Your task to perform on an android device: allow cookies in the chrome app Image 0: 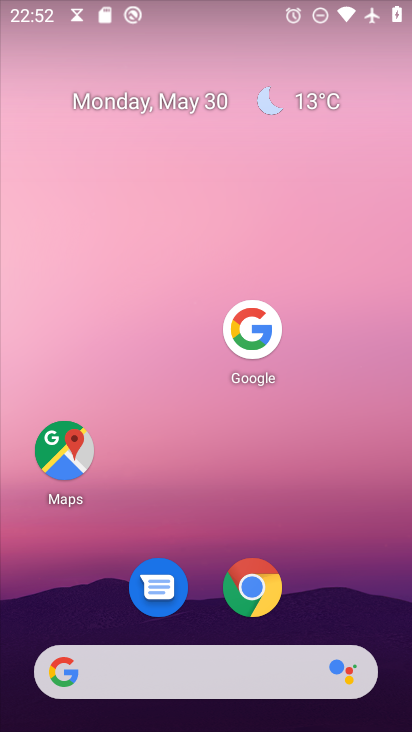
Step 0: click (249, 589)
Your task to perform on an android device: allow cookies in the chrome app Image 1: 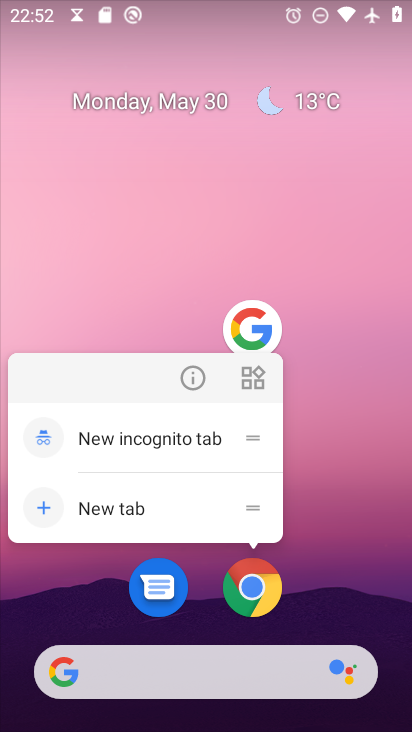
Step 1: click (249, 589)
Your task to perform on an android device: allow cookies in the chrome app Image 2: 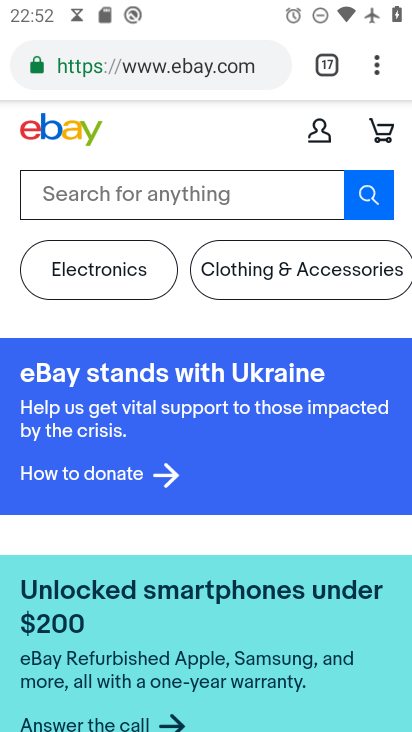
Step 2: drag from (375, 52) to (227, 644)
Your task to perform on an android device: allow cookies in the chrome app Image 3: 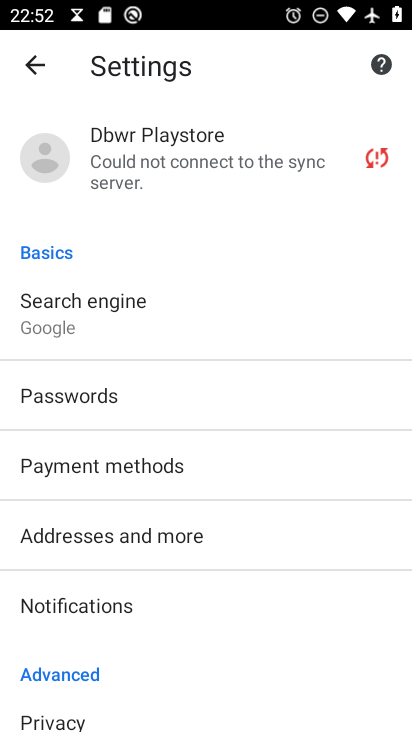
Step 3: drag from (230, 610) to (283, 139)
Your task to perform on an android device: allow cookies in the chrome app Image 4: 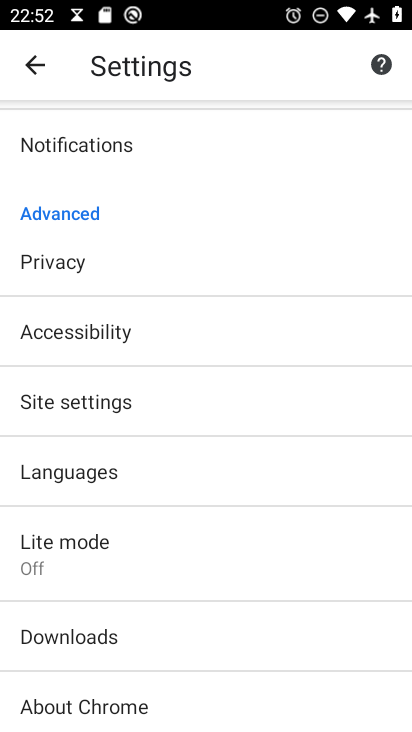
Step 4: click (84, 407)
Your task to perform on an android device: allow cookies in the chrome app Image 5: 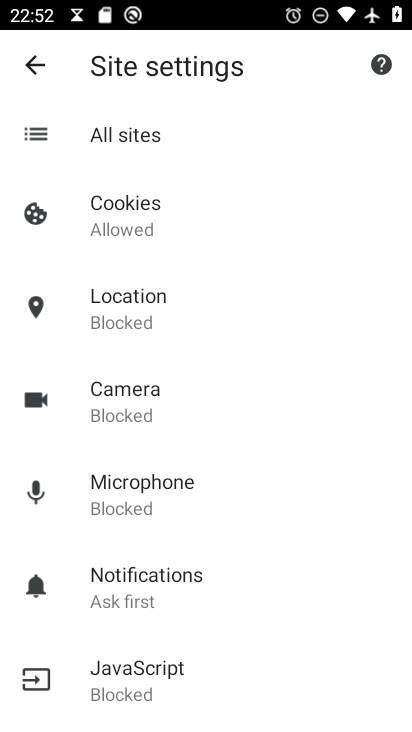
Step 5: click (114, 212)
Your task to perform on an android device: allow cookies in the chrome app Image 6: 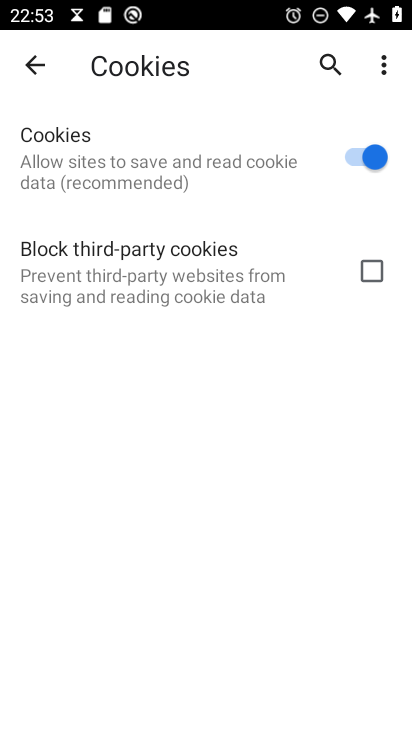
Step 6: task complete